Your task to perform on an android device: toggle javascript in the chrome app Image 0: 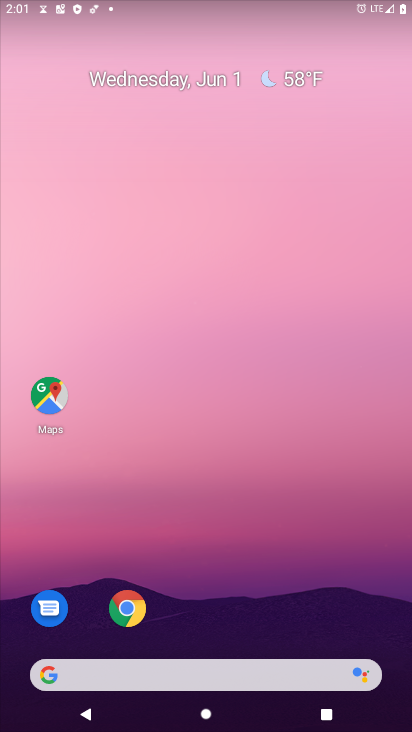
Step 0: drag from (159, 416) to (171, 0)
Your task to perform on an android device: toggle javascript in the chrome app Image 1: 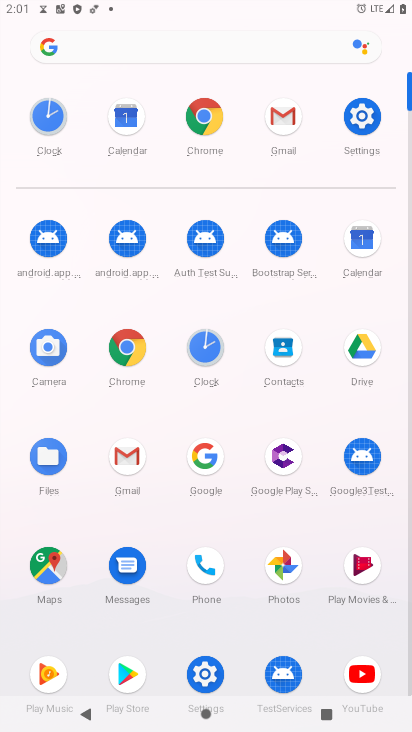
Step 1: click (143, 338)
Your task to perform on an android device: toggle javascript in the chrome app Image 2: 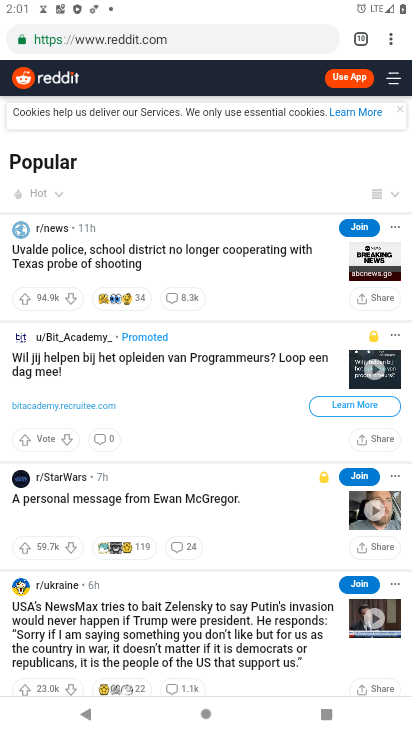
Step 2: click (389, 37)
Your task to perform on an android device: toggle javascript in the chrome app Image 3: 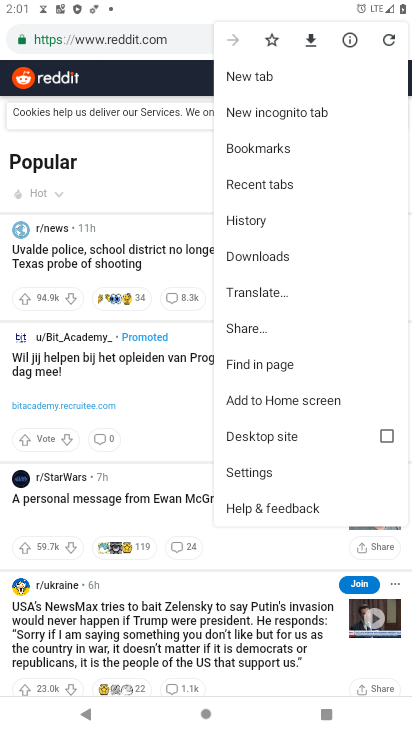
Step 3: click (288, 458)
Your task to perform on an android device: toggle javascript in the chrome app Image 4: 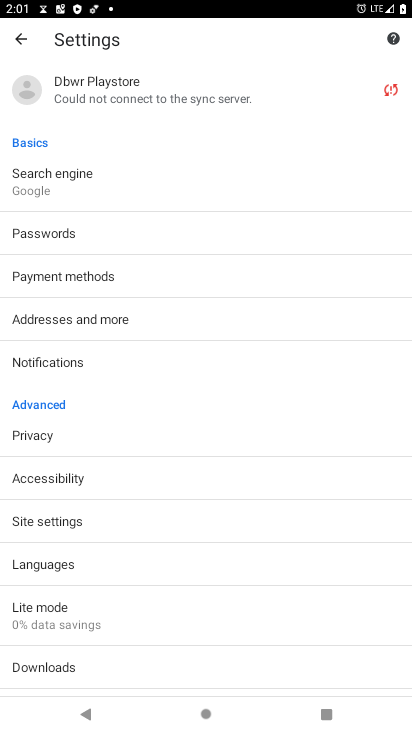
Step 4: click (86, 509)
Your task to perform on an android device: toggle javascript in the chrome app Image 5: 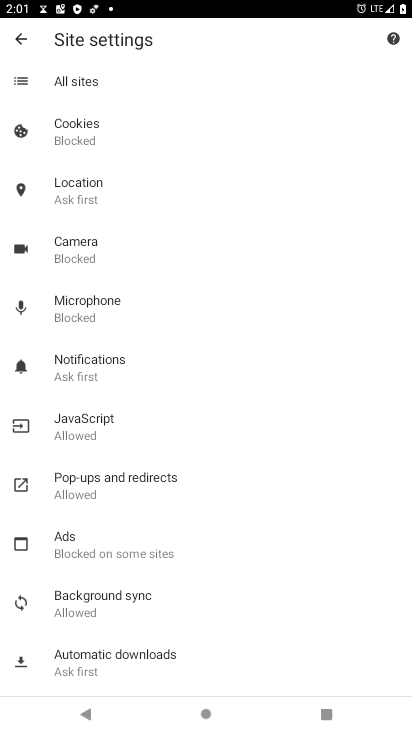
Step 5: click (125, 405)
Your task to perform on an android device: toggle javascript in the chrome app Image 6: 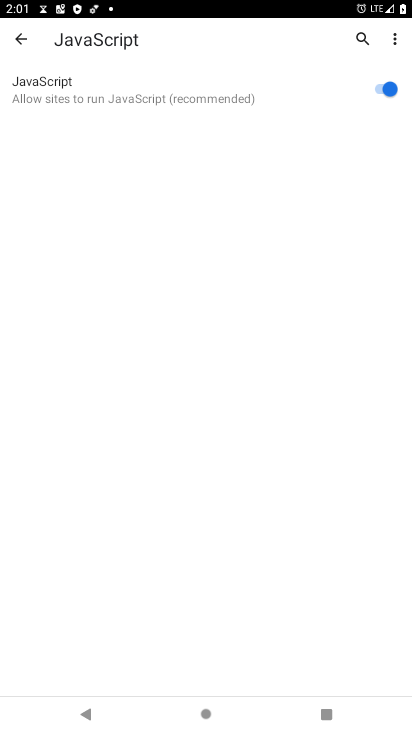
Step 6: click (373, 93)
Your task to perform on an android device: toggle javascript in the chrome app Image 7: 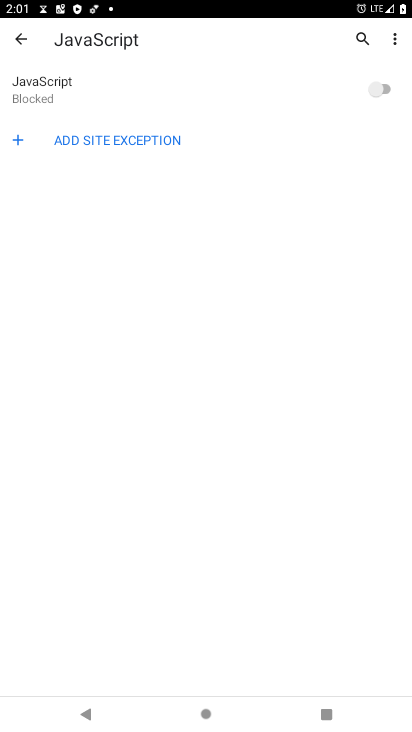
Step 7: task complete